Your task to perform on an android device: Open my contact list Image 0: 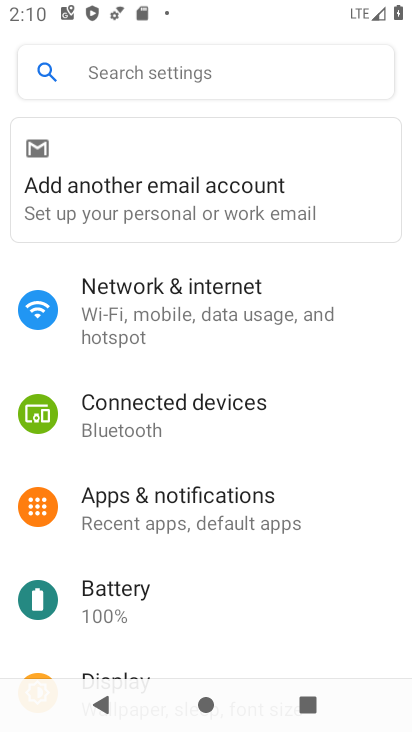
Step 0: press home button
Your task to perform on an android device: Open my contact list Image 1: 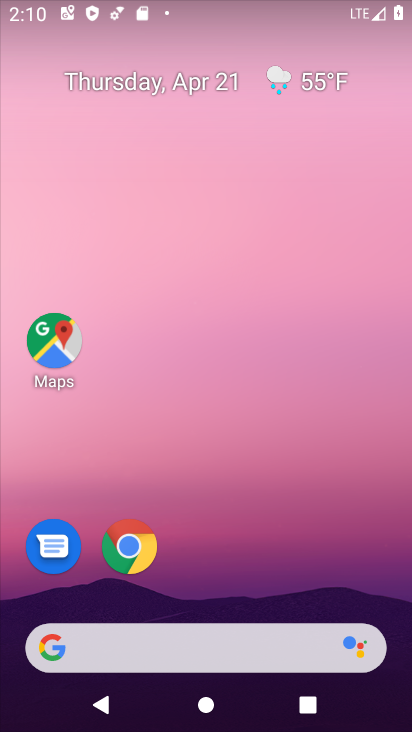
Step 1: drag from (303, 602) to (280, 207)
Your task to perform on an android device: Open my contact list Image 2: 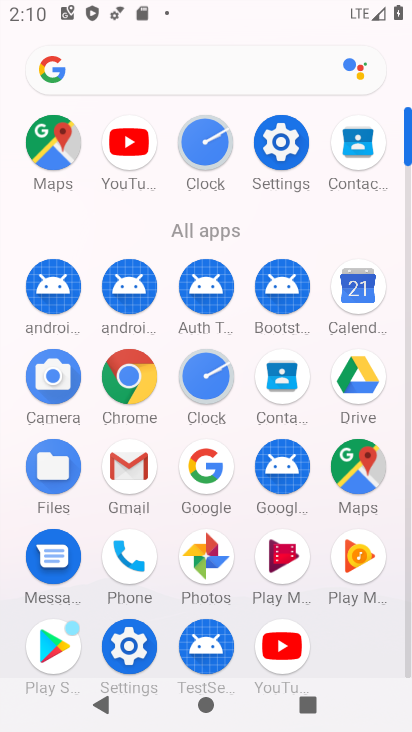
Step 2: click (382, 143)
Your task to perform on an android device: Open my contact list Image 3: 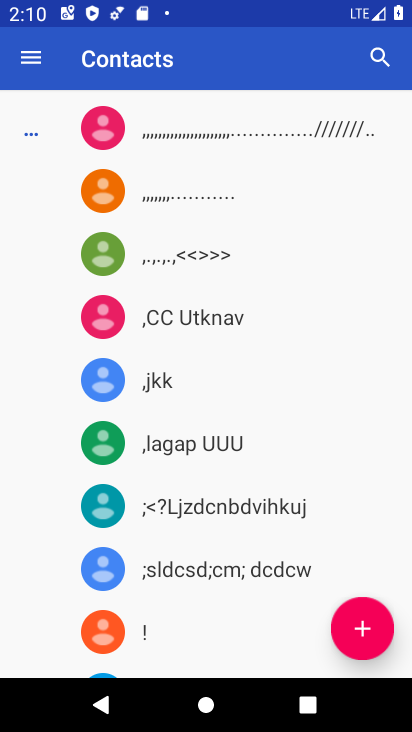
Step 3: task complete